Your task to perform on an android device: Go to location settings Image 0: 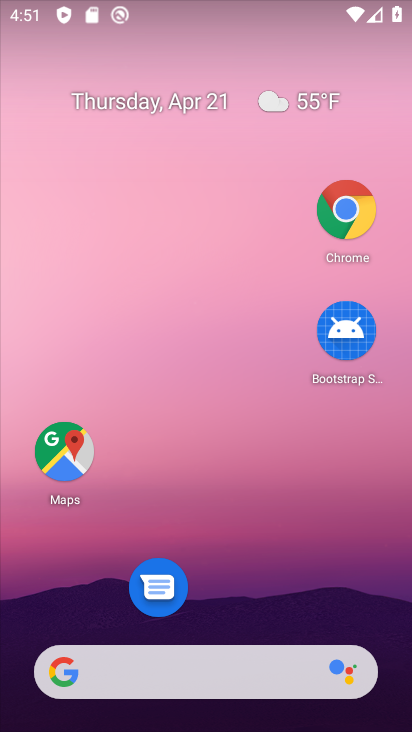
Step 0: drag from (325, 618) to (322, 89)
Your task to perform on an android device: Go to location settings Image 1: 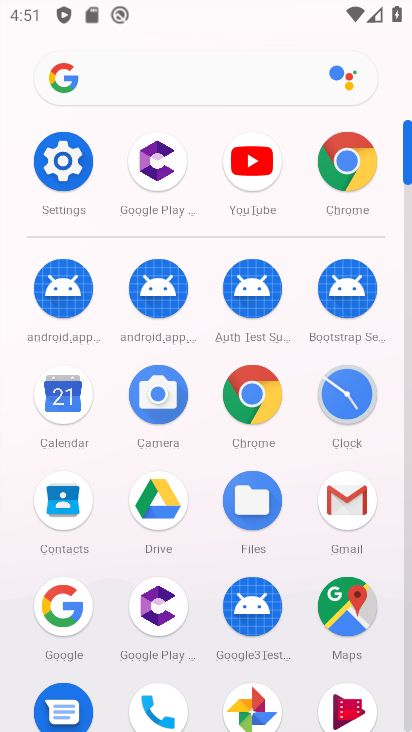
Step 1: click (63, 160)
Your task to perform on an android device: Go to location settings Image 2: 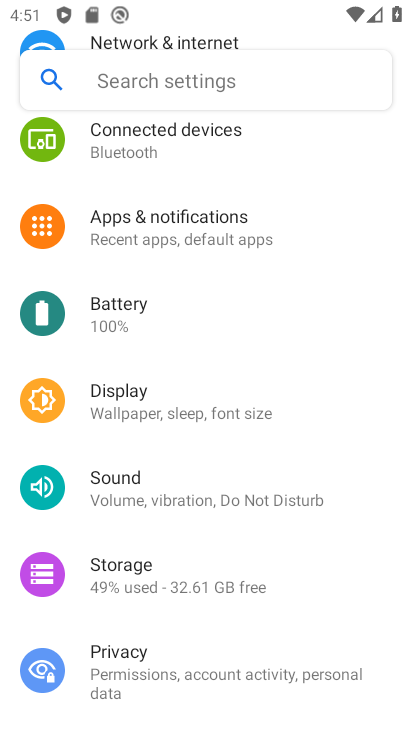
Step 2: drag from (346, 537) to (340, 94)
Your task to perform on an android device: Go to location settings Image 3: 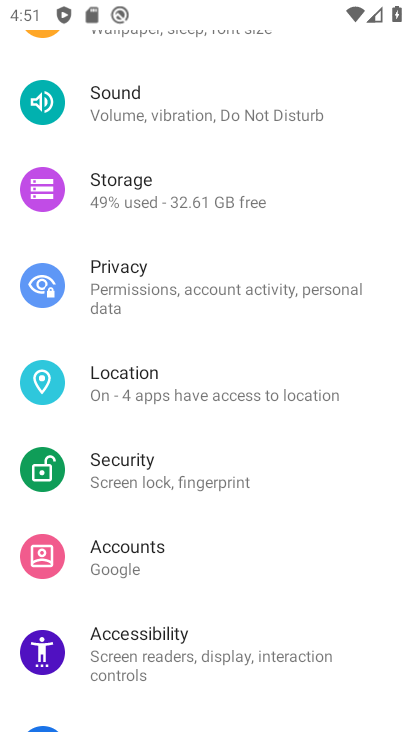
Step 3: click (114, 376)
Your task to perform on an android device: Go to location settings Image 4: 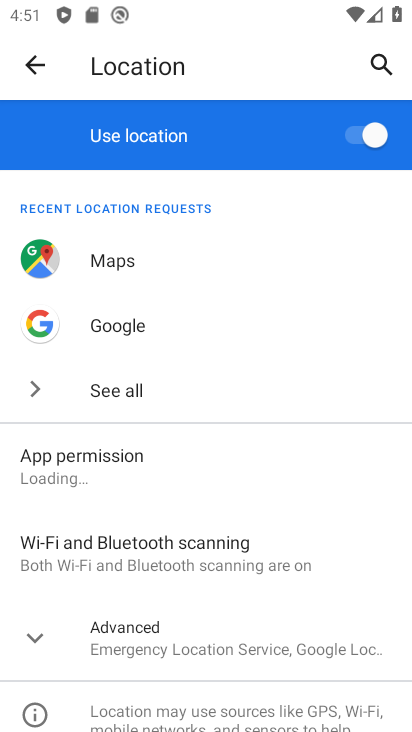
Step 4: drag from (293, 455) to (327, 205)
Your task to perform on an android device: Go to location settings Image 5: 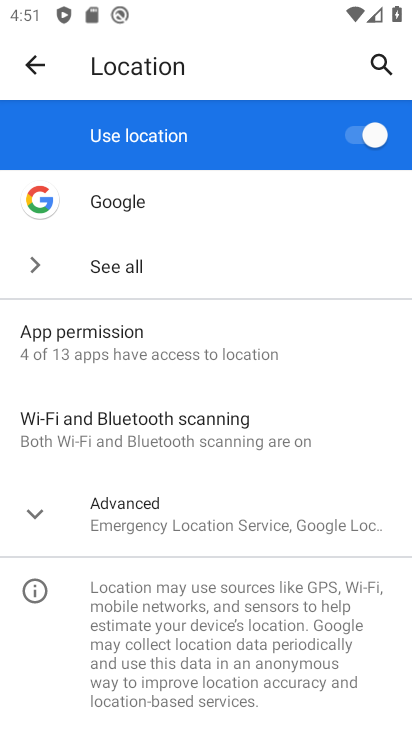
Step 5: click (41, 507)
Your task to perform on an android device: Go to location settings Image 6: 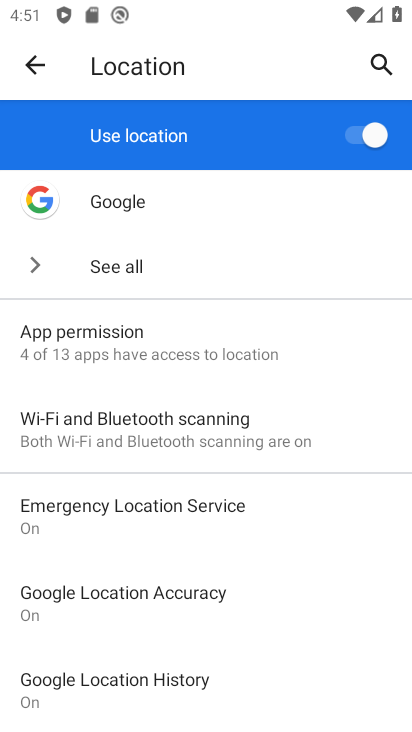
Step 6: task complete